Your task to perform on an android device: clear history in the chrome app Image 0: 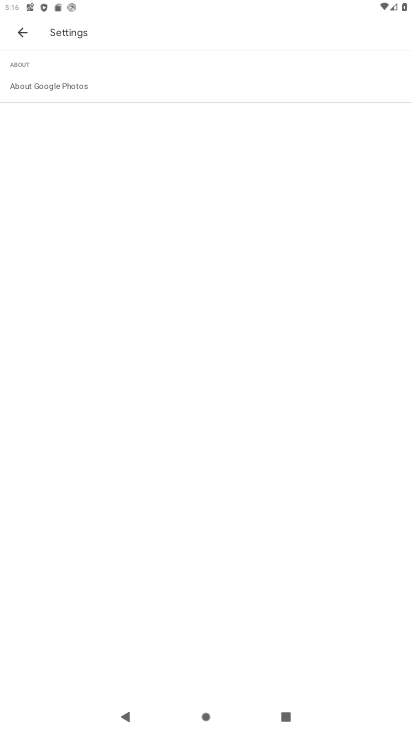
Step 0: press home button
Your task to perform on an android device: clear history in the chrome app Image 1: 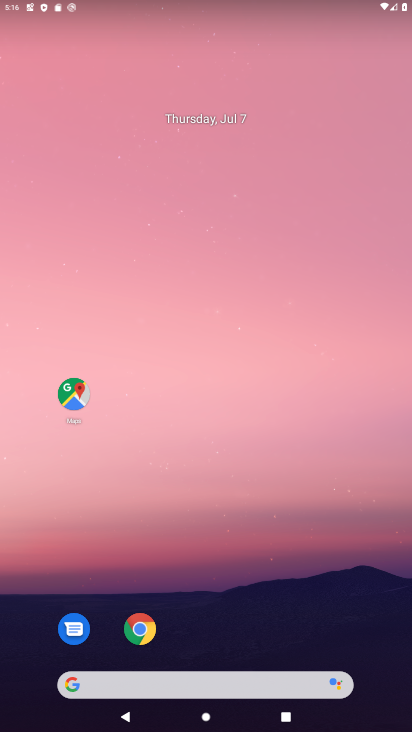
Step 1: drag from (269, 590) to (233, 11)
Your task to perform on an android device: clear history in the chrome app Image 2: 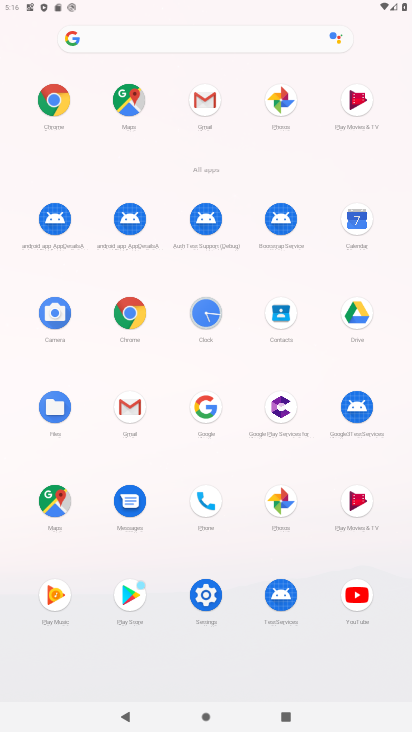
Step 2: click (121, 322)
Your task to perform on an android device: clear history in the chrome app Image 3: 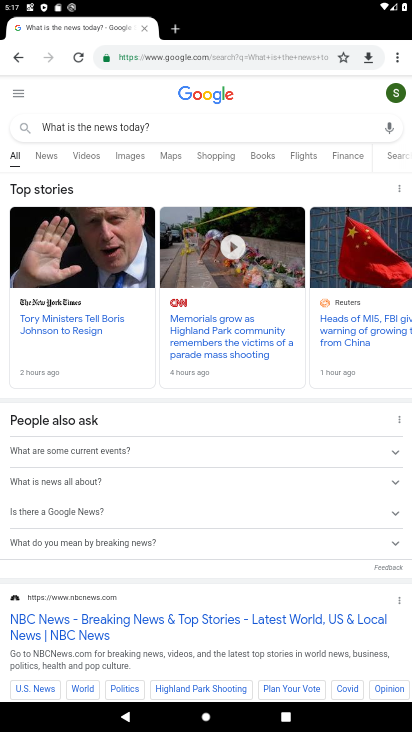
Step 3: drag from (399, 58) to (264, 174)
Your task to perform on an android device: clear history in the chrome app Image 4: 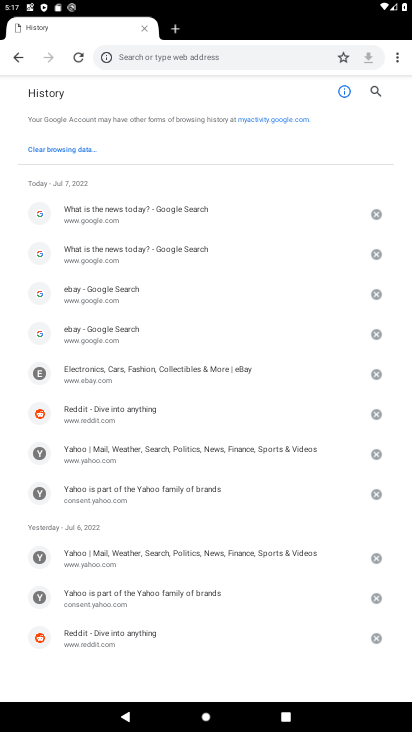
Step 4: drag from (135, 596) to (175, 277)
Your task to perform on an android device: clear history in the chrome app Image 5: 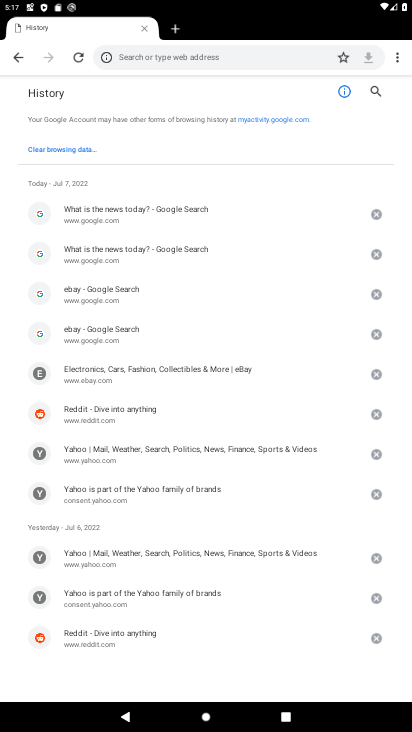
Step 5: click (372, 632)
Your task to perform on an android device: clear history in the chrome app Image 6: 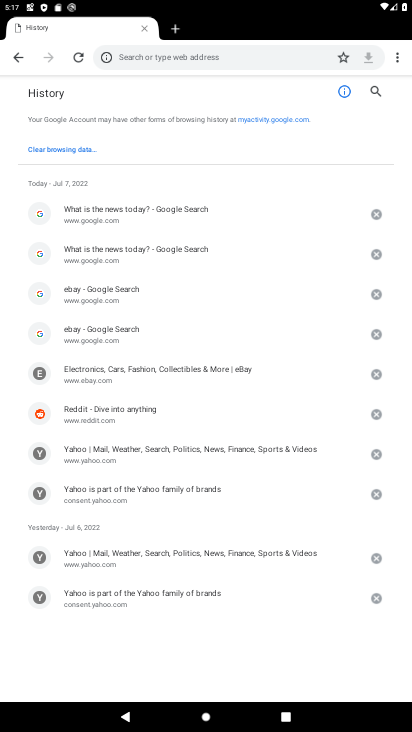
Step 6: click (377, 589)
Your task to perform on an android device: clear history in the chrome app Image 7: 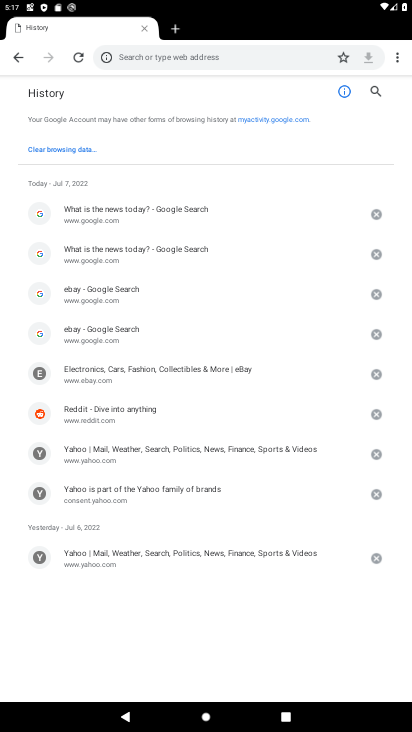
Step 7: click (375, 208)
Your task to perform on an android device: clear history in the chrome app Image 8: 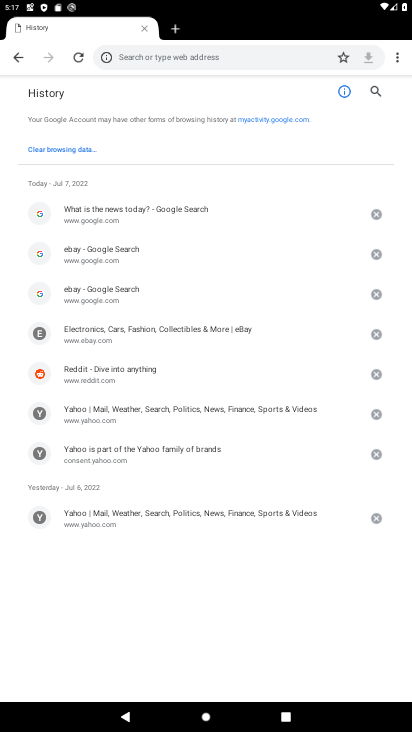
Step 8: click (375, 208)
Your task to perform on an android device: clear history in the chrome app Image 9: 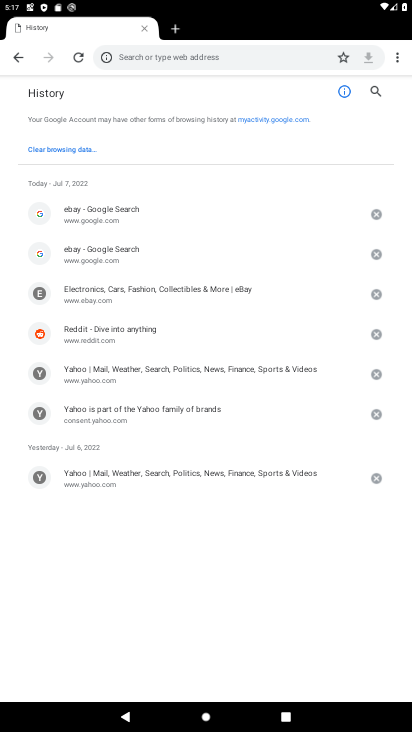
Step 9: click (375, 208)
Your task to perform on an android device: clear history in the chrome app Image 10: 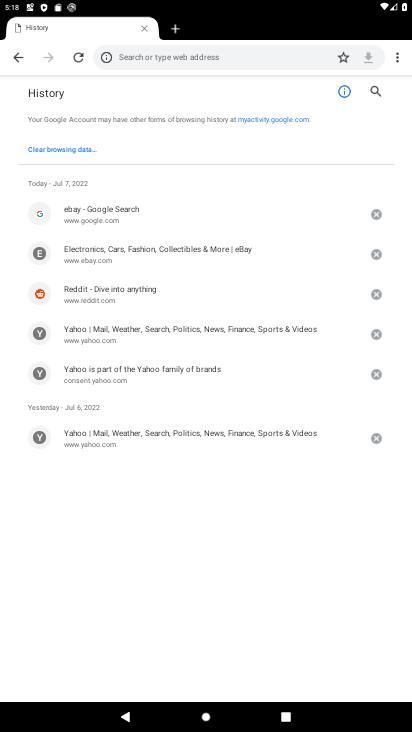
Step 10: click (375, 208)
Your task to perform on an android device: clear history in the chrome app Image 11: 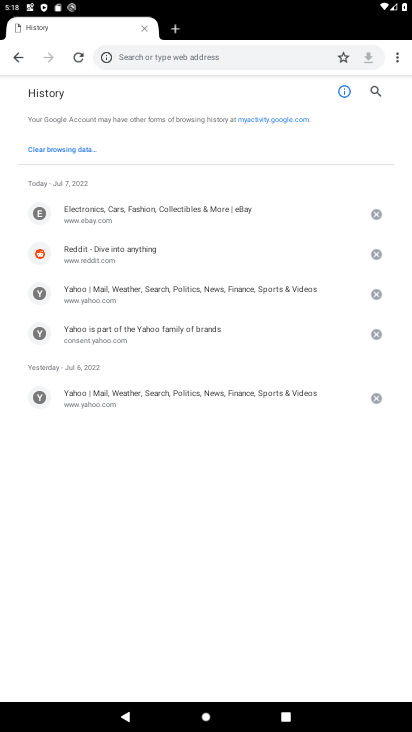
Step 11: click (375, 208)
Your task to perform on an android device: clear history in the chrome app Image 12: 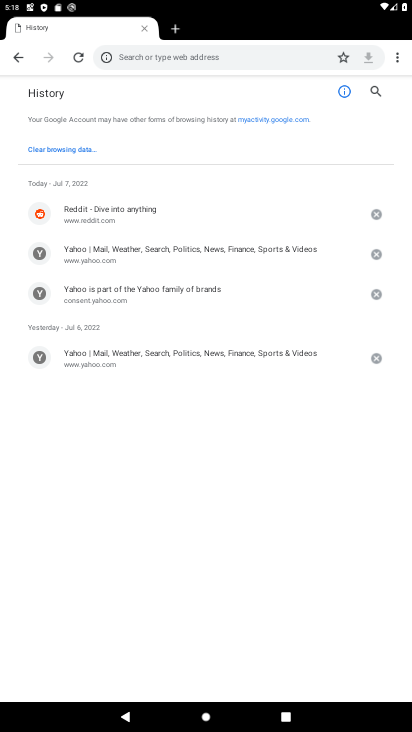
Step 12: click (375, 208)
Your task to perform on an android device: clear history in the chrome app Image 13: 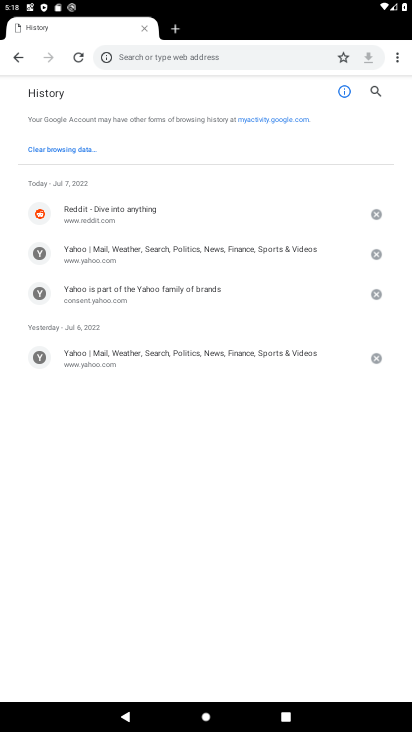
Step 13: click (373, 204)
Your task to perform on an android device: clear history in the chrome app Image 14: 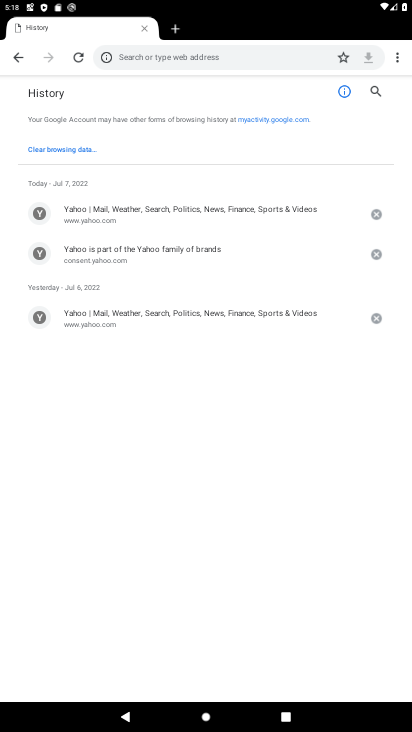
Step 14: click (374, 209)
Your task to perform on an android device: clear history in the chrome app Image 15: 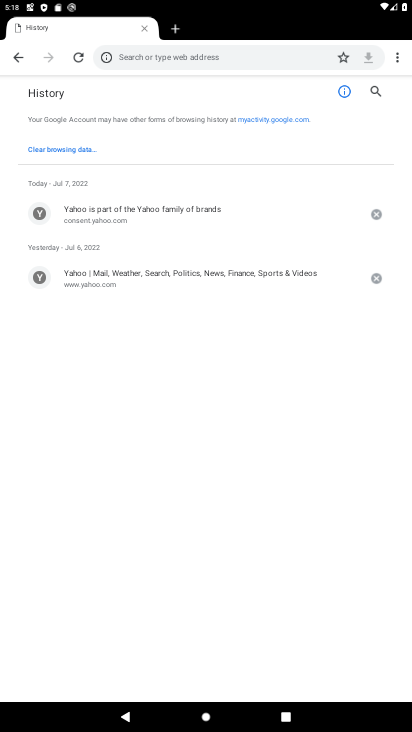
Step 15: click (374, 209)
Your task to perform on an android device: clear history in the chrome app Image 16: 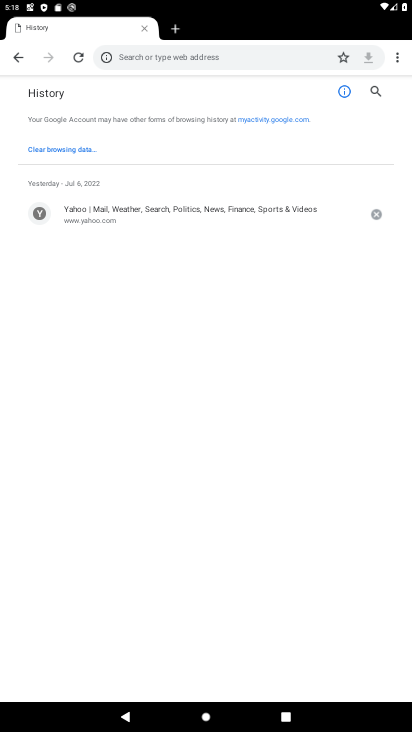
Step 16: click (374, 209)
Your task to perform on an android device: clear history in the chrome app Image 17: 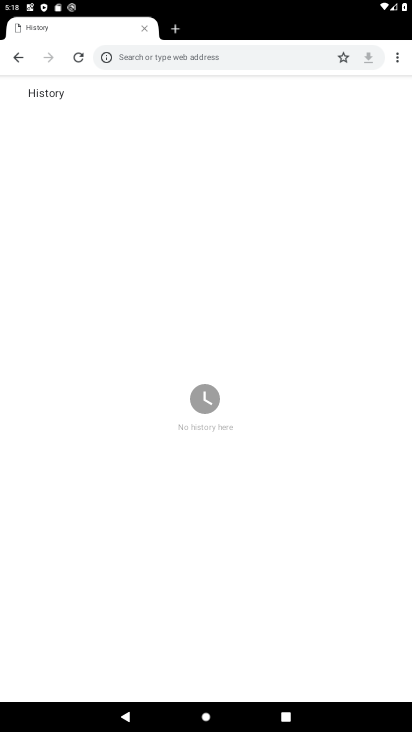
Step 17: task complete